Your task to perform on an android device: open a bookmark in the chrome app Image 0: 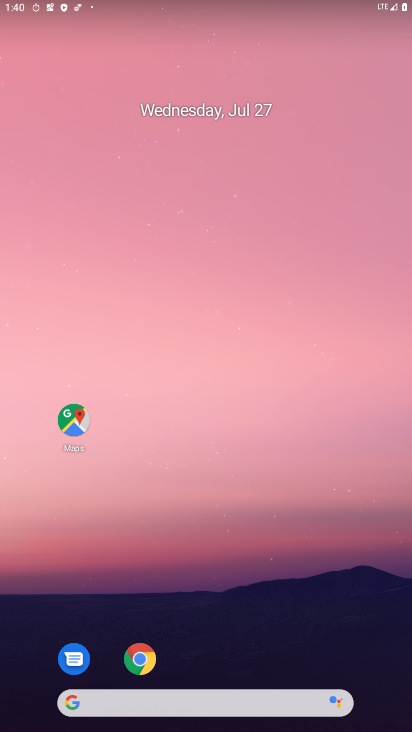
Step 0: click (123, 660)
Your task to perform on an android device: open a bookmark in the chrome app Image 1: 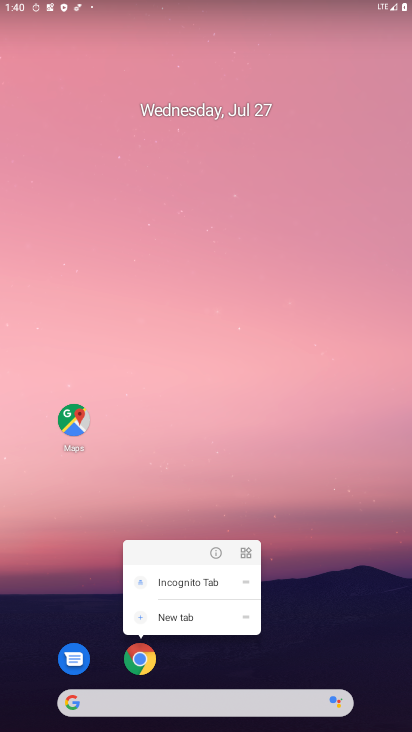
Step 1: click (148, 660)
Your task to perform on an android device: open a bookmark in the chrome app Image 2: 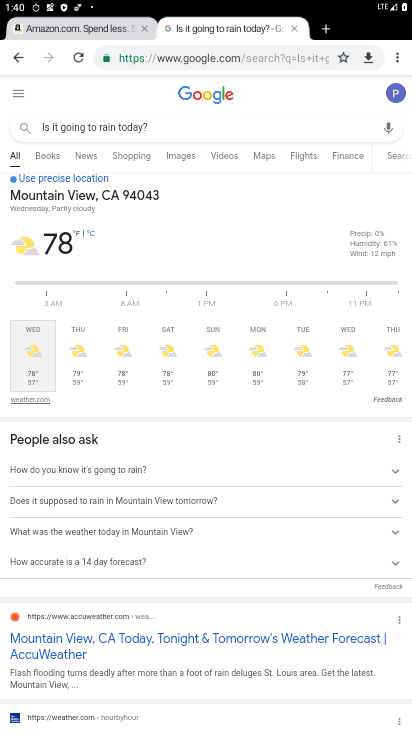
Step 2: task complete